Your task to perform on an android device: Go to internet settings Image 0: 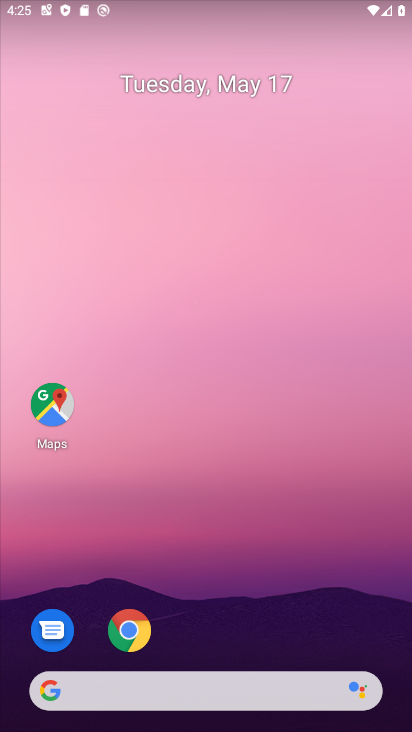
Step 0: press home button
Your task to perform on an android device: Go to internet settings Image 1: 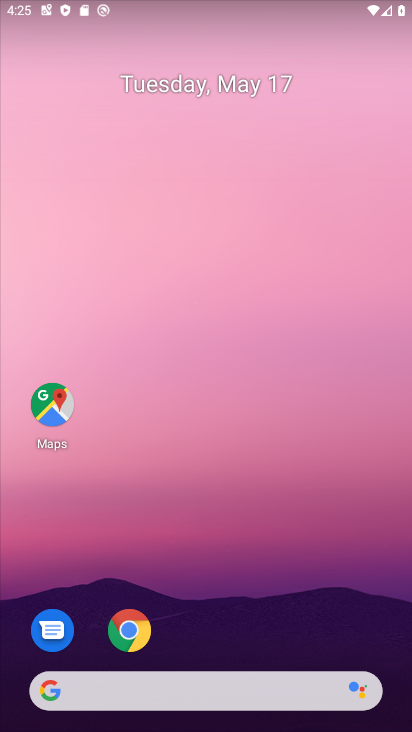
Step 1: drag from (198, 720) to (199, 173)
Your task to perform on an android device: Go to internet settings Image 2: 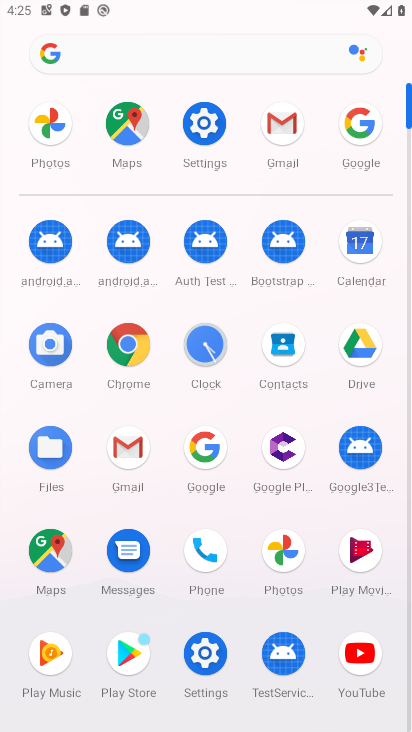
Step 2: click (202, 124)
Your task to perform on an android device: Go to internet settings Image 3: 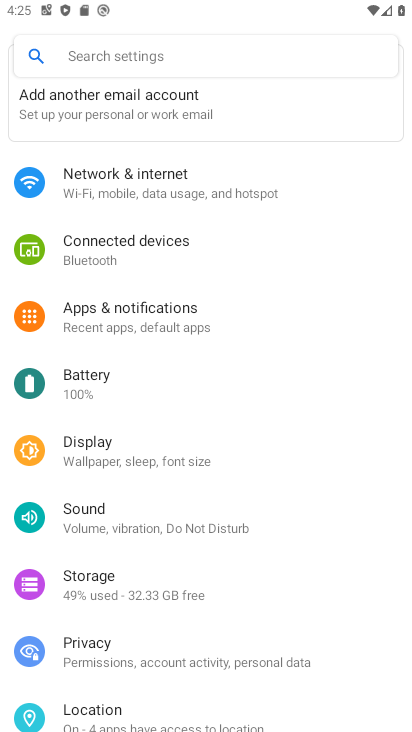
Step 3: click (143, 185)
Your task to perform on an android device: Go to internet settings Image 4: 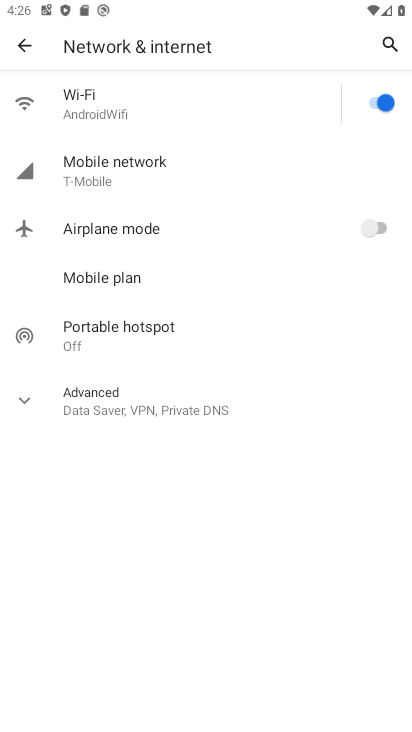
Step 4: task complete